Your task to perform on an android device: find which apps use the phone's location Image 0: 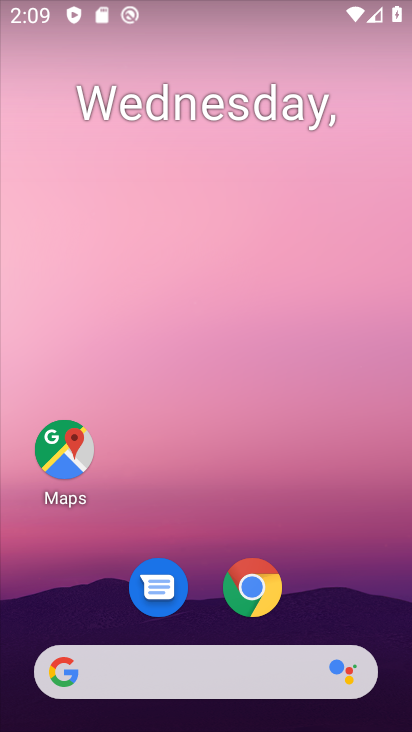
Step 0: drag from (328, 611) to (222, 32)
Your task to perform on an android device: find which apps use the phone's location Image 1: 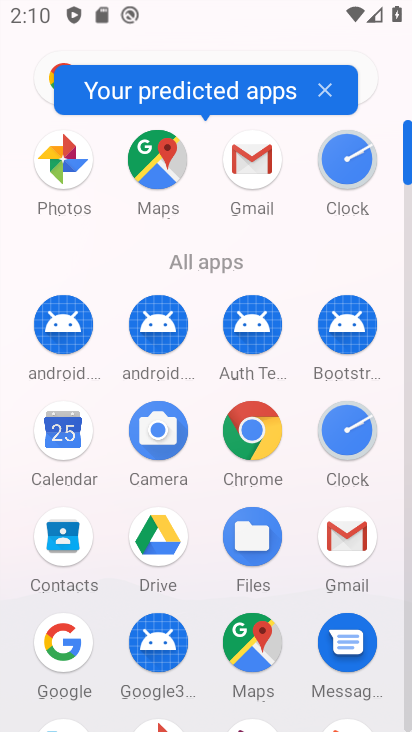
Step 1: click (407, 651)
Your task to perform on an android device: find which apps use the phone's location Image 2: 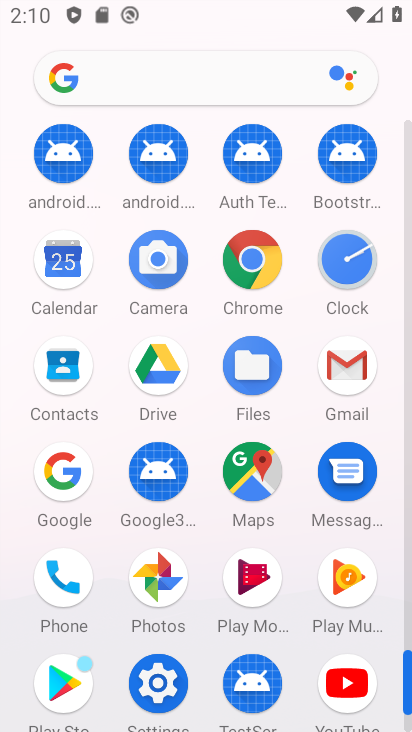
Step 2: click (171, 659)
Your task to perform on an android device: find which apps use the phone's location Image 3: 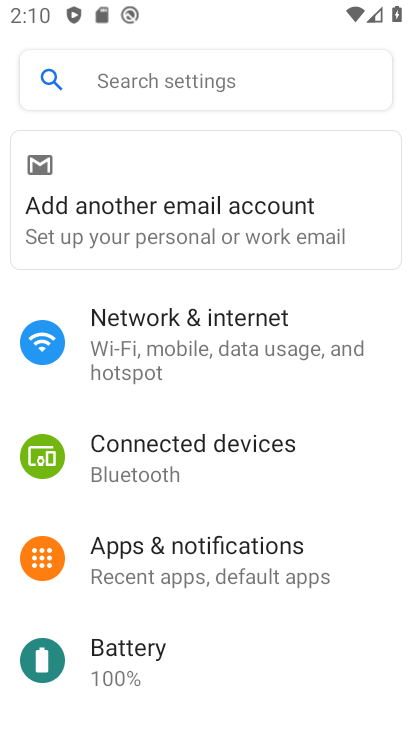
Step 3: drag from (214, 693) to (161, 121)
Your task to perform on an android device: find which apps use the phone's location Image 4: 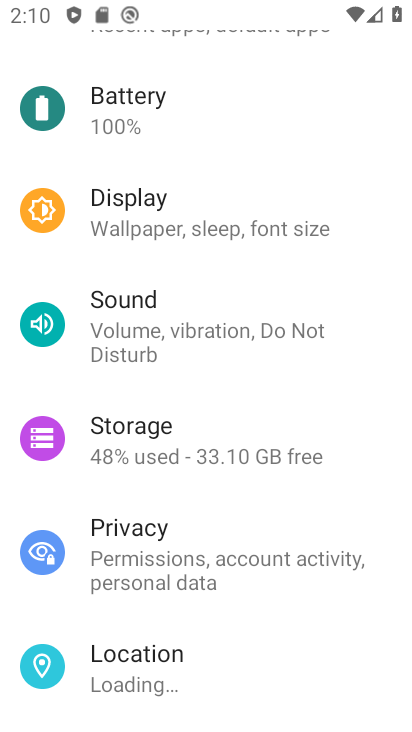
Step 4: drag from (254, 576) to (205, 118)
Your task to perform on an android device: find which apps use the phone's location Image 5: 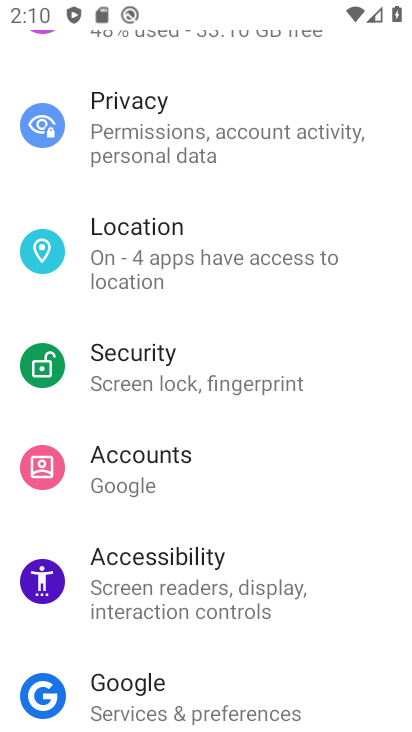
Step 5: click (230, 257)
Your task to perform on an android device: find which apps use the phone's location Image 6: 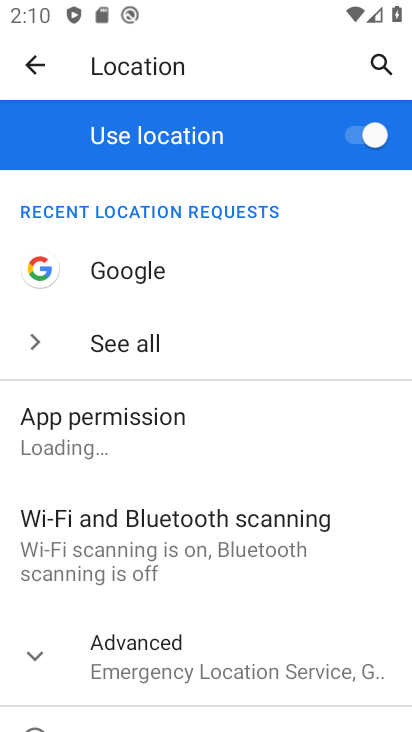
Step 6: drag from (247, 595) to (235, 281)
Your task to perform on an android device: find which apps use the phone's location Image 7: 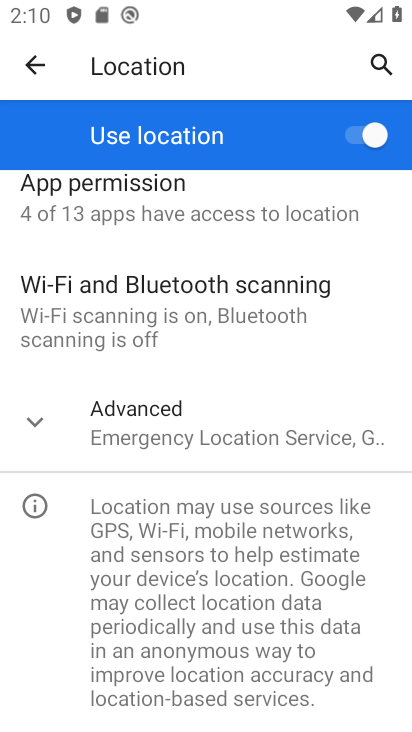
Step 7: click (225, 225)
Your task to perform on an android device: find which apps use the phone's location Image 8: 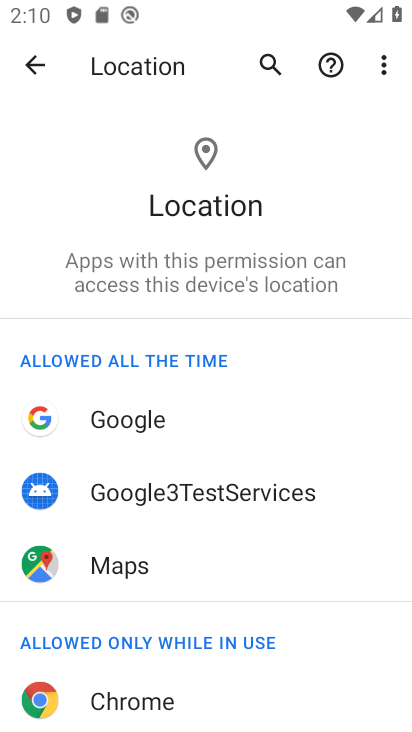
Step 8: task complete